Your task to perform on an android device: turn on wifi Image 0: 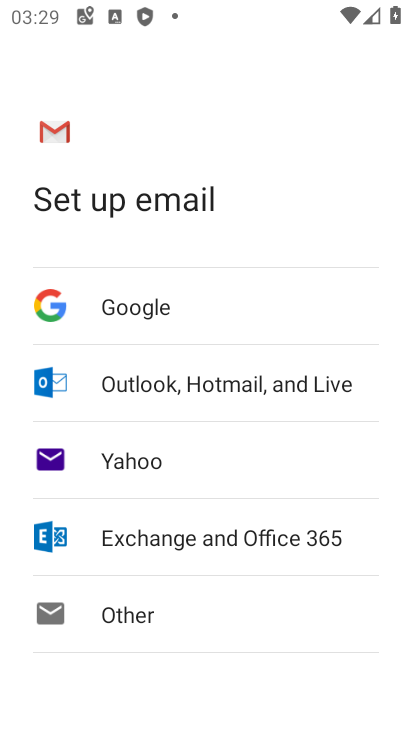
Step 0: press home button
Your task to perform on an android device: turn on wifi Image 1: 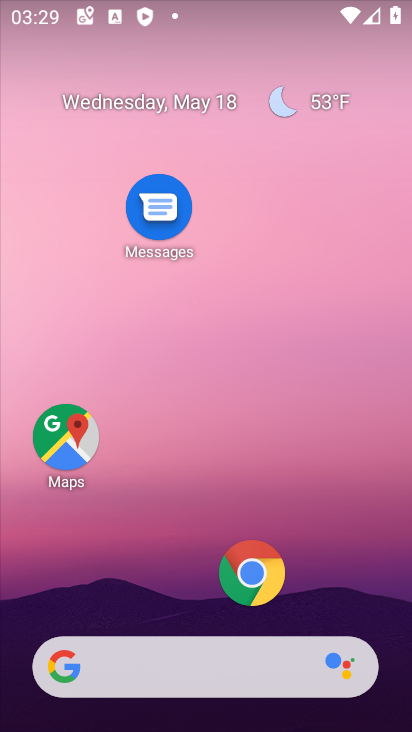
Step 1: drag from (190, 602) to (219, 253)
Your task to perform on an android device: turn on wifi Image 2: 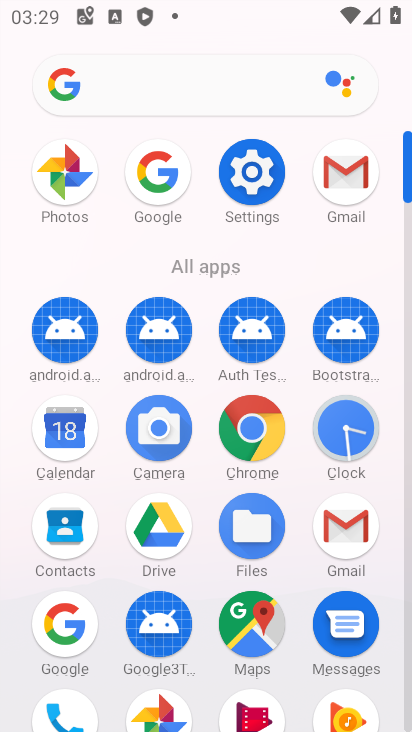
Step 2: click (242, 179)
Your task to perform on an android device: turn on wifi Image 3: 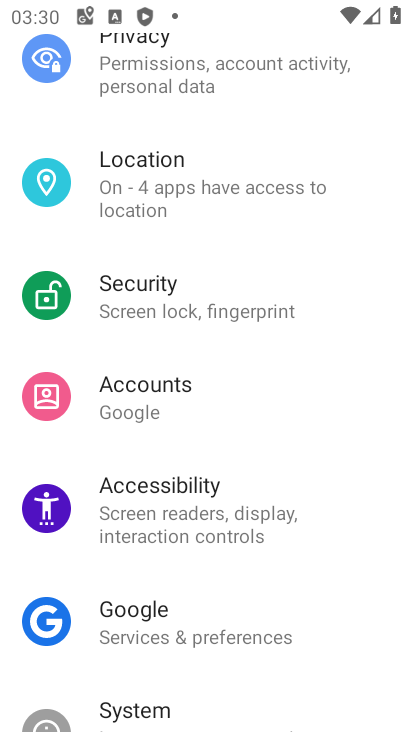
Step 3: drag from (238, 174) to (206, 475)
Your task to perform on an android device: turn on wifi Image 4: 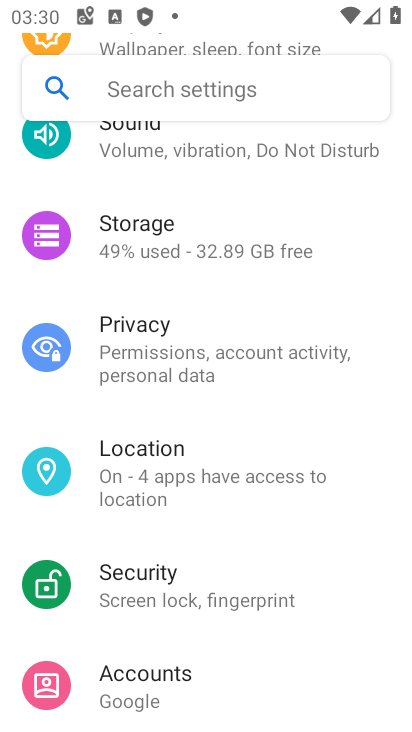
Step 4: drag from (161, 156) to (169, 473)
Your task to perform on an android device: turn on wifi Image 5: 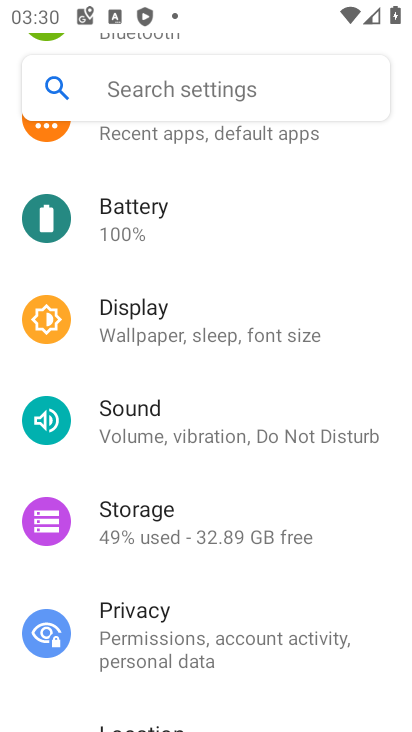
Step 5: drag from (179, 212) to (201, 434)
Your task to perform on an android device: turn on wifi Image 6: 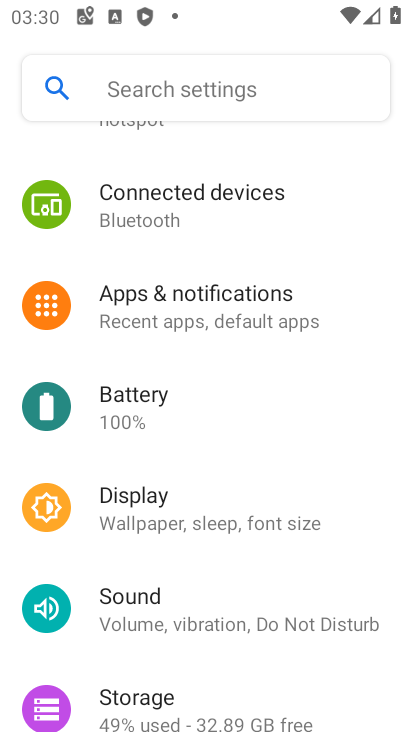
Step 6: drag from (208, 248) to (234, 420)
Your task to perform on an android device: turn on wifi Image 7: 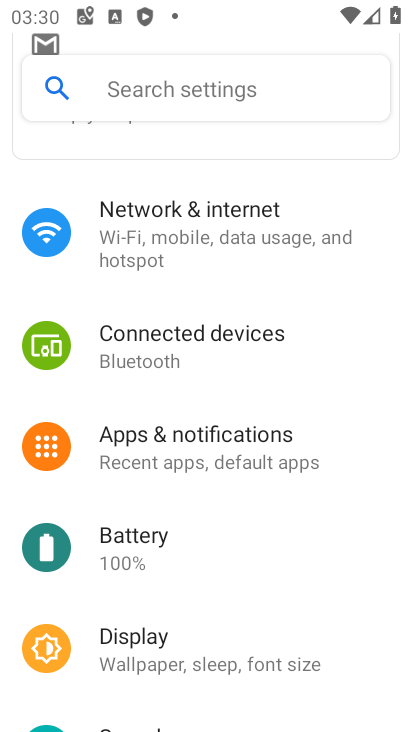
Step 7: click (189, 242)
Your task to perform on an android device: turn on wifi Image 8: 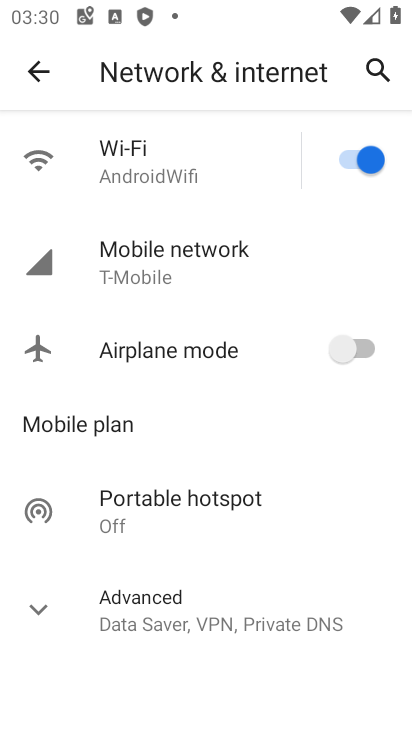
Step 8: task complete